Your task to perform on an android device: change text size in settings app Image 0: 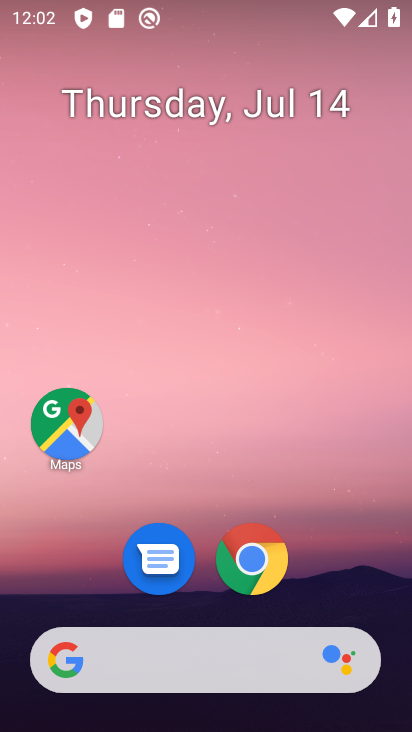
Step 0: drag from (229, 603) to (244, 25)
Your task to perform on an android device: change text size in settings app Image 1: 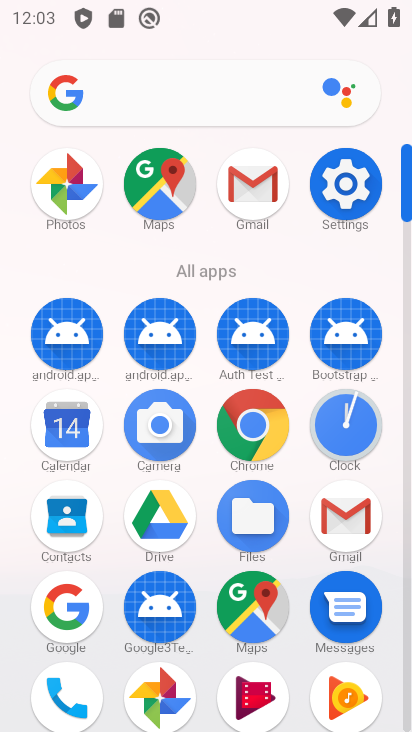
Step 1: click (338, 172)
Your task to perform on an android device: change text size in settings app Image 2: 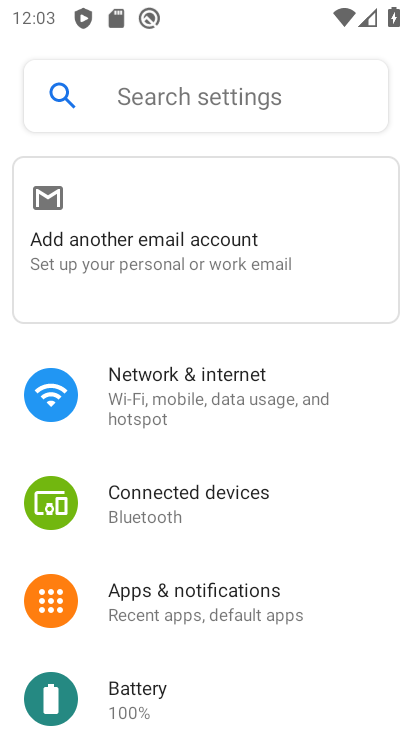
Step 2: click (120, 94)
Your task to perform on an android device: change text size in settings app Image 3: 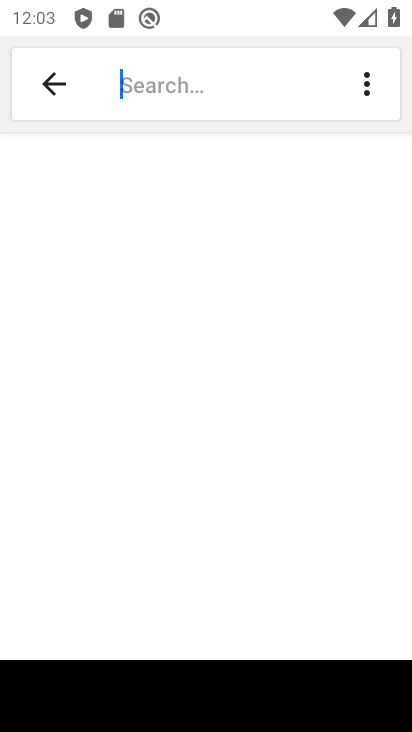
Step 3: type "text size"
Your task to perform on an android device: change text size in settings app Image 4: 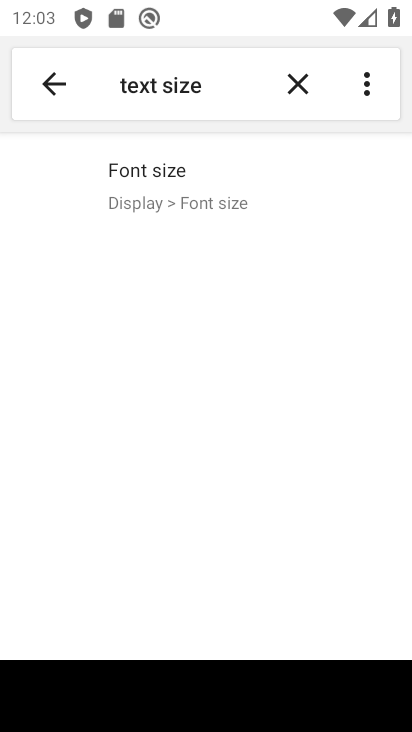
Step 4: click (188, 182)
Your task to perform on an android device: change text size in settings app Image 5: 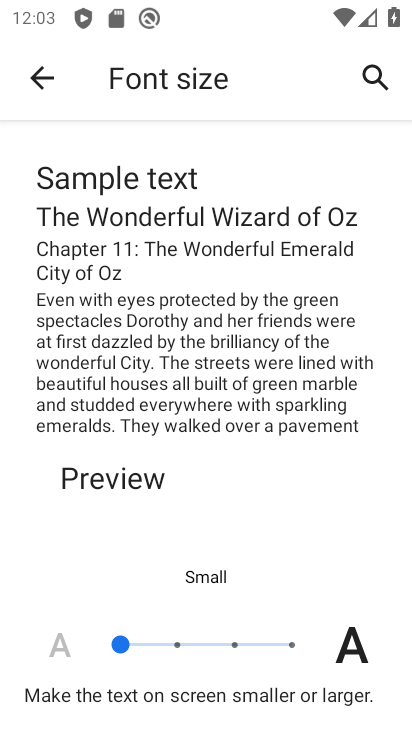
Step 5: task complete